Your task to perform on an android device: change timer sound Image 0: 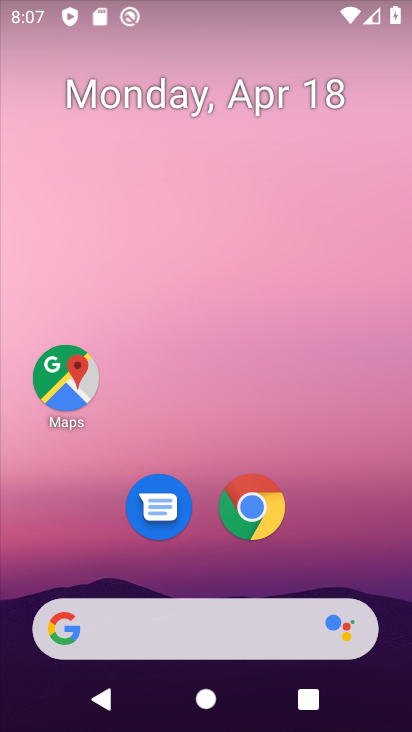
Step 0: drag from (374, 553) to (383, 5)
Your task to perform on an android device: change timer sound Image 1: 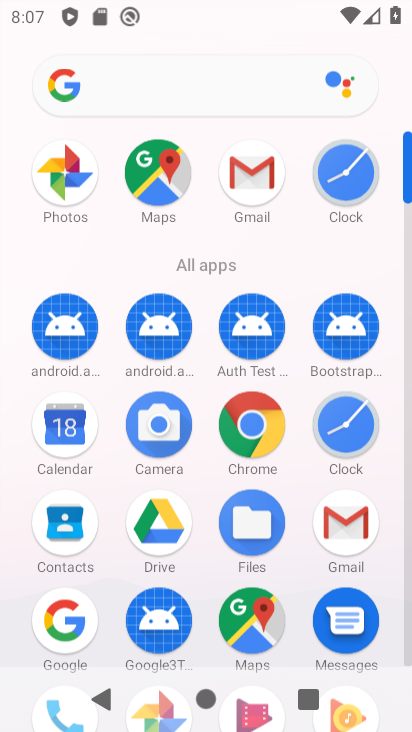
Step 1: click (354, 175)
Your task to perform on an android device: change timer sound Image 2: 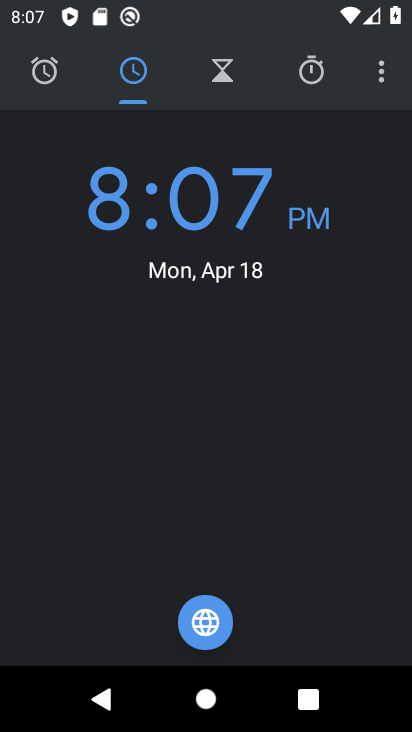
Step 2: click (385, 69)
Your task to perform on an android device: change timer sound Image 3: 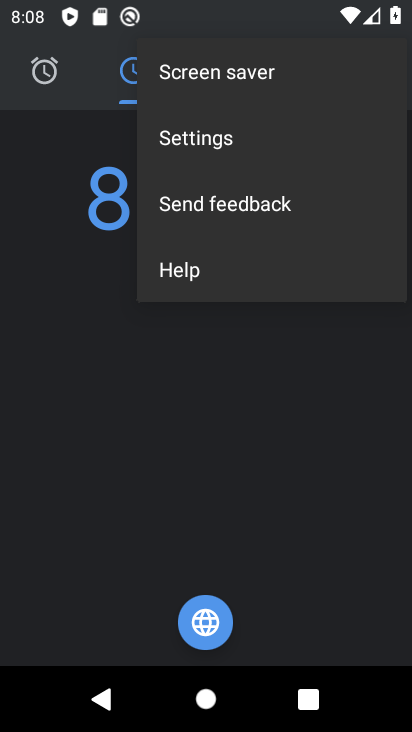
Step 3: click (215, 147)
Your task to perform on an android device: change timer sound Image 4: 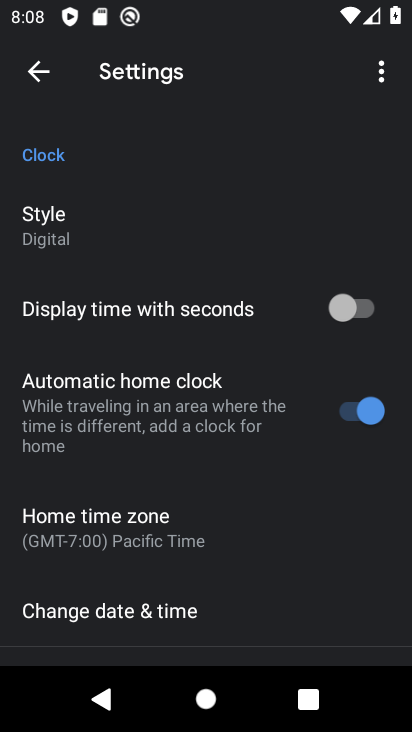
Step 4: drag from (217, 513) to (227, 183)
Your task to perform on an android device: change timer sound Image 5: 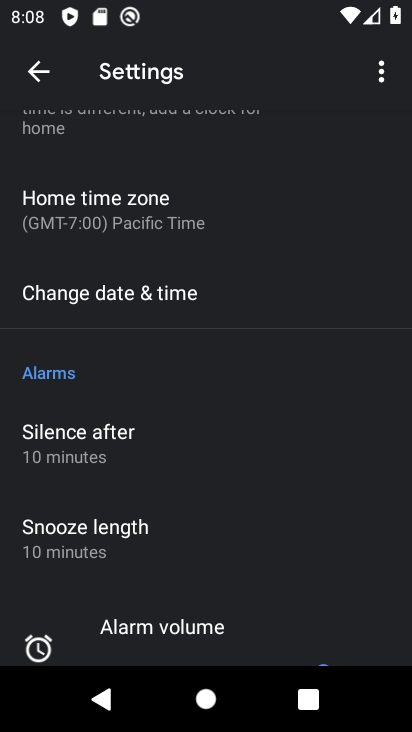
Step 5: drag from (202, 471) to (191, 241)
Your task to perform on an android device: change timer sound Image 6: 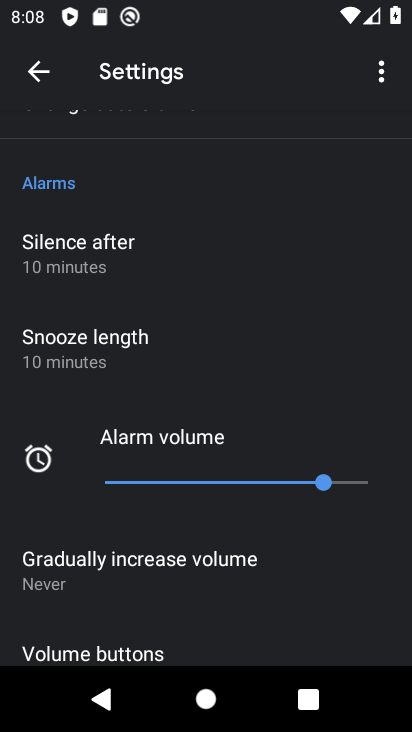
Step 6: drag from (206, 481) to (186, 196)
Your task to perform on an android device: change timer sound Image 7: 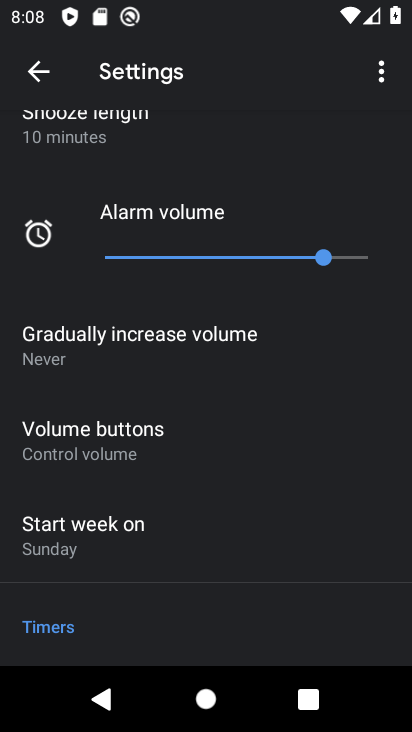
Step 7: drag from (196, 452) to (192, 174)
Your task to perform on an android device: change timer sound Image 8: 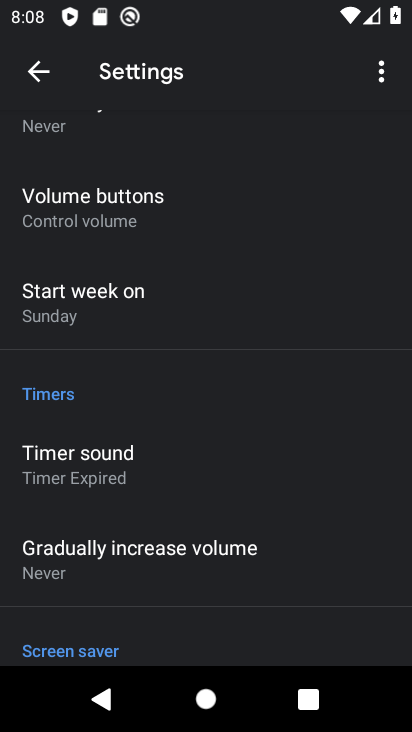
Step 8: click (59, 464)
Your task to perform on an android device: change timer sound Image 9: 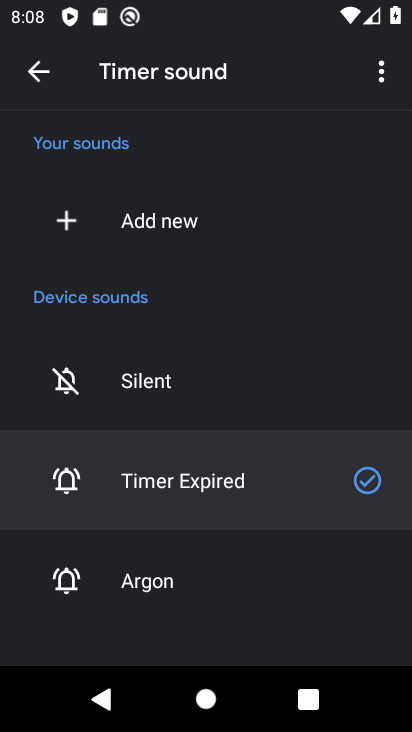
Step 9: click (112, 579)
Your task to perform on an android device: change timer sound Image 10: 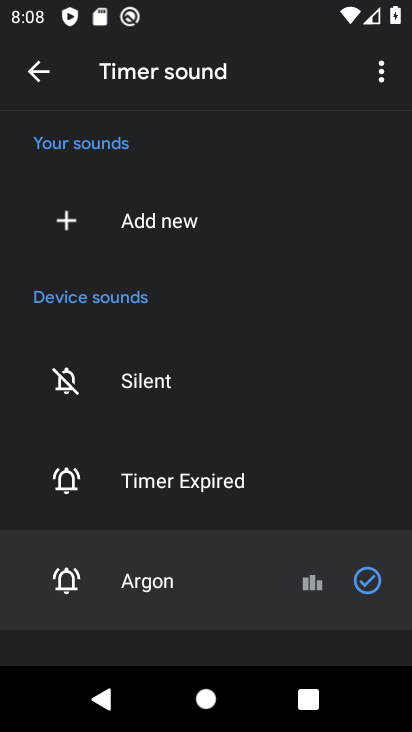
Step 10: task complete